Your task to perform on an android device: Search for vegetarian restaurants on Maps Image 0: 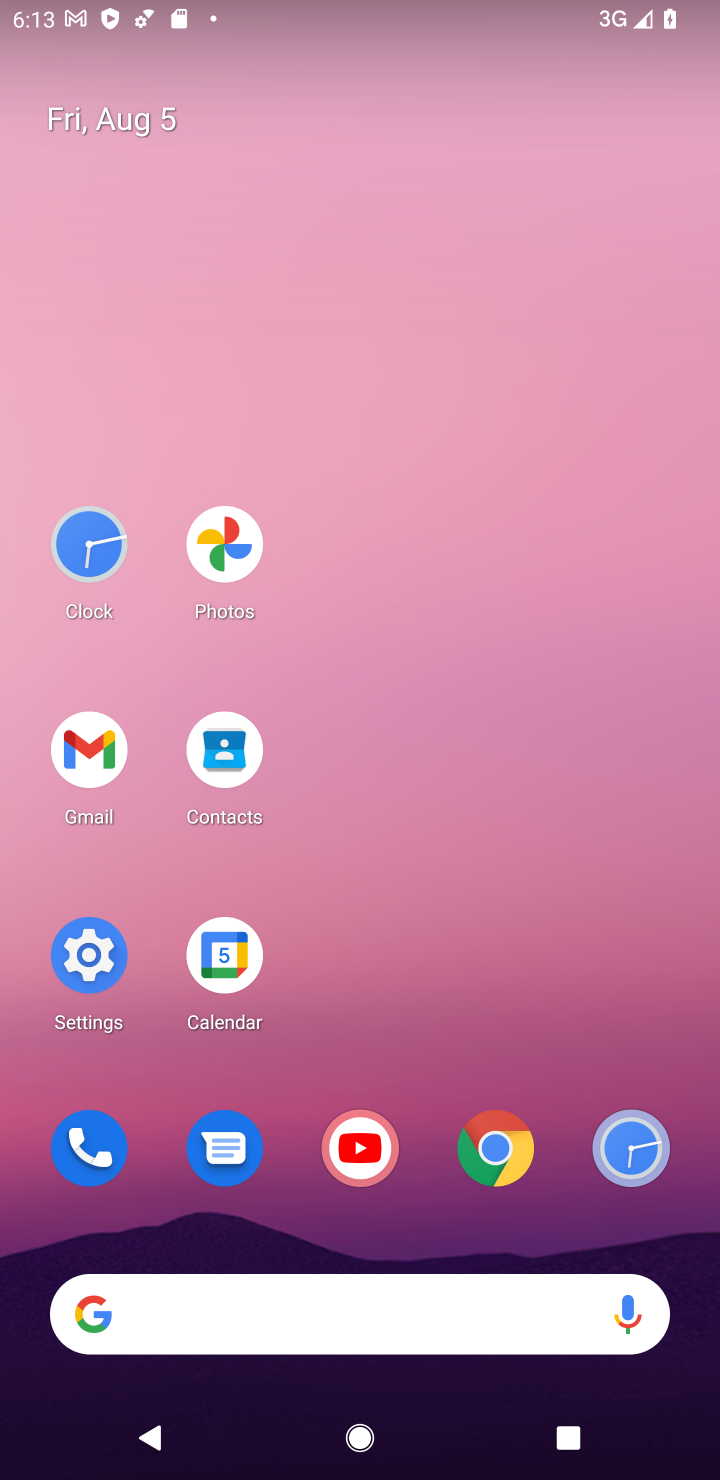
Step 0: drag from (451, 1235) to (338, 261)
Your task to perform on an android device: Search for vegetarian restaurants on Maps Image 1: 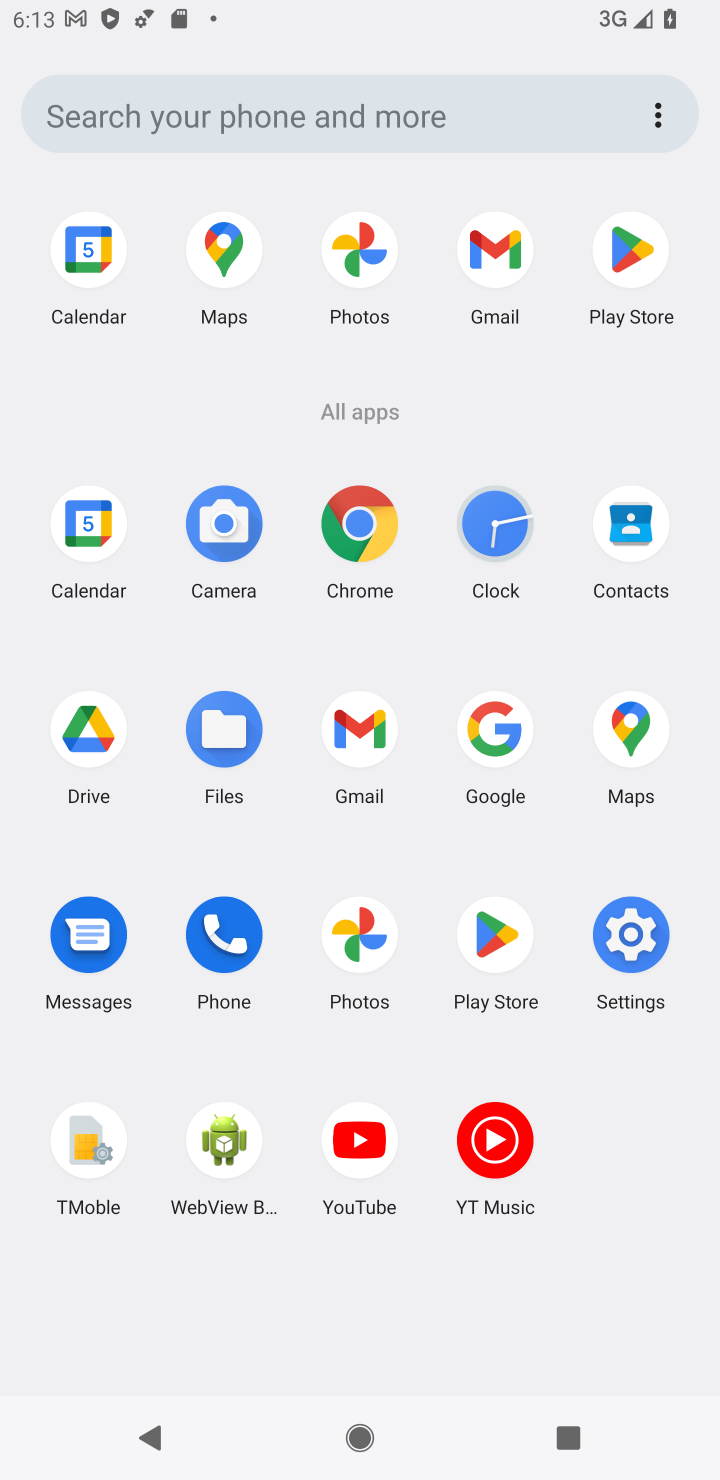
Step 1: click (227, 234)
Your task to perform on an android device: Search for vegetarian restaurants on Maps Image 2: 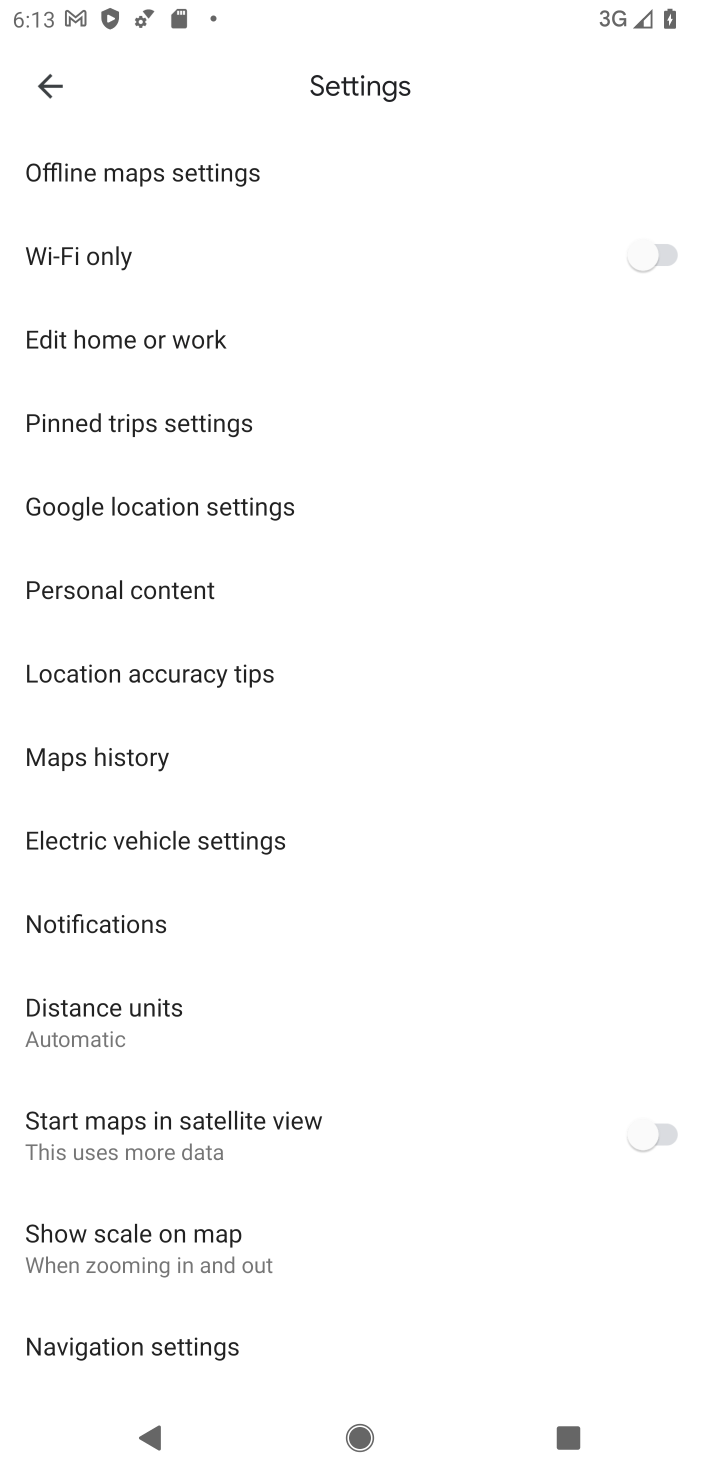
Step 2: click (42, 88)
Your task to perform on an android device: Search for vegetarian restaurants on Maps Image 3: 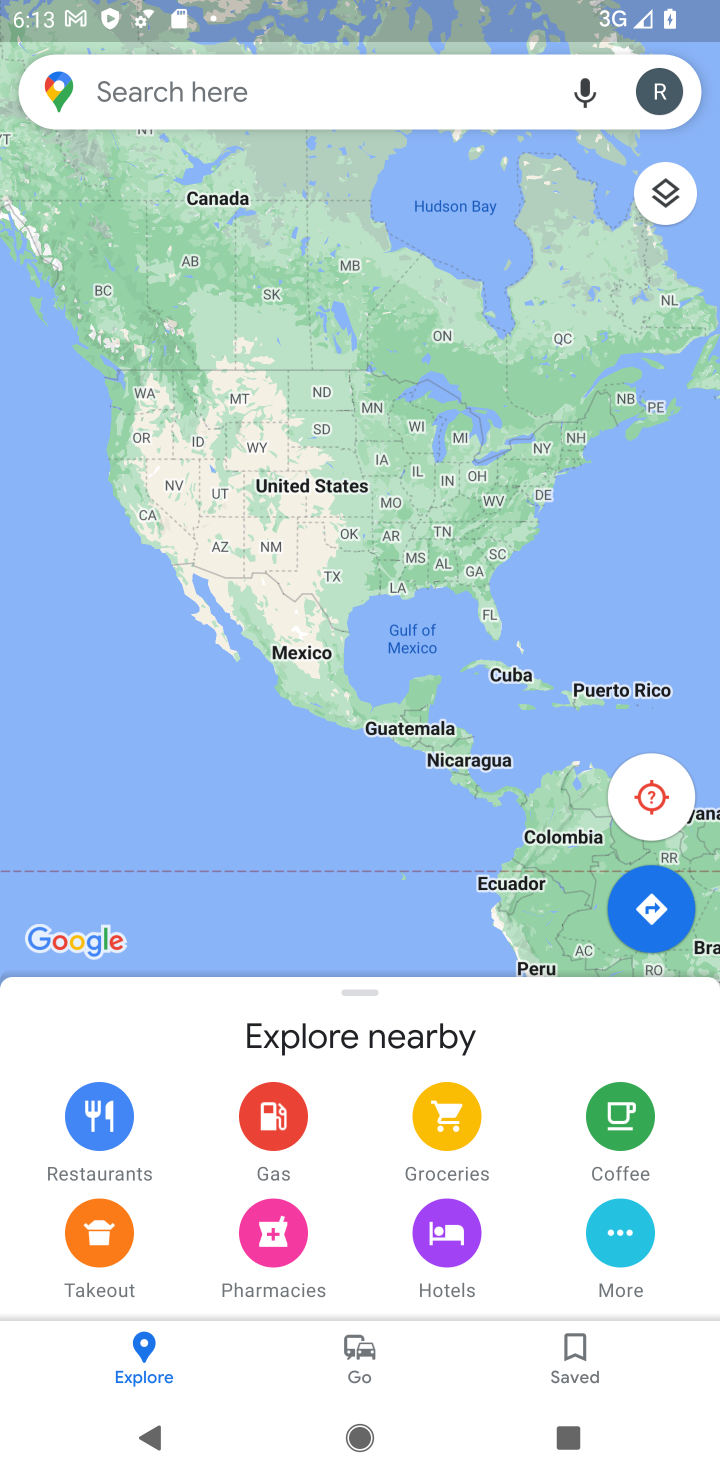
Step 3: click (300, 99)
Your task to perform on an android device: Search for vegetarian restaurants on Maps Image 4: 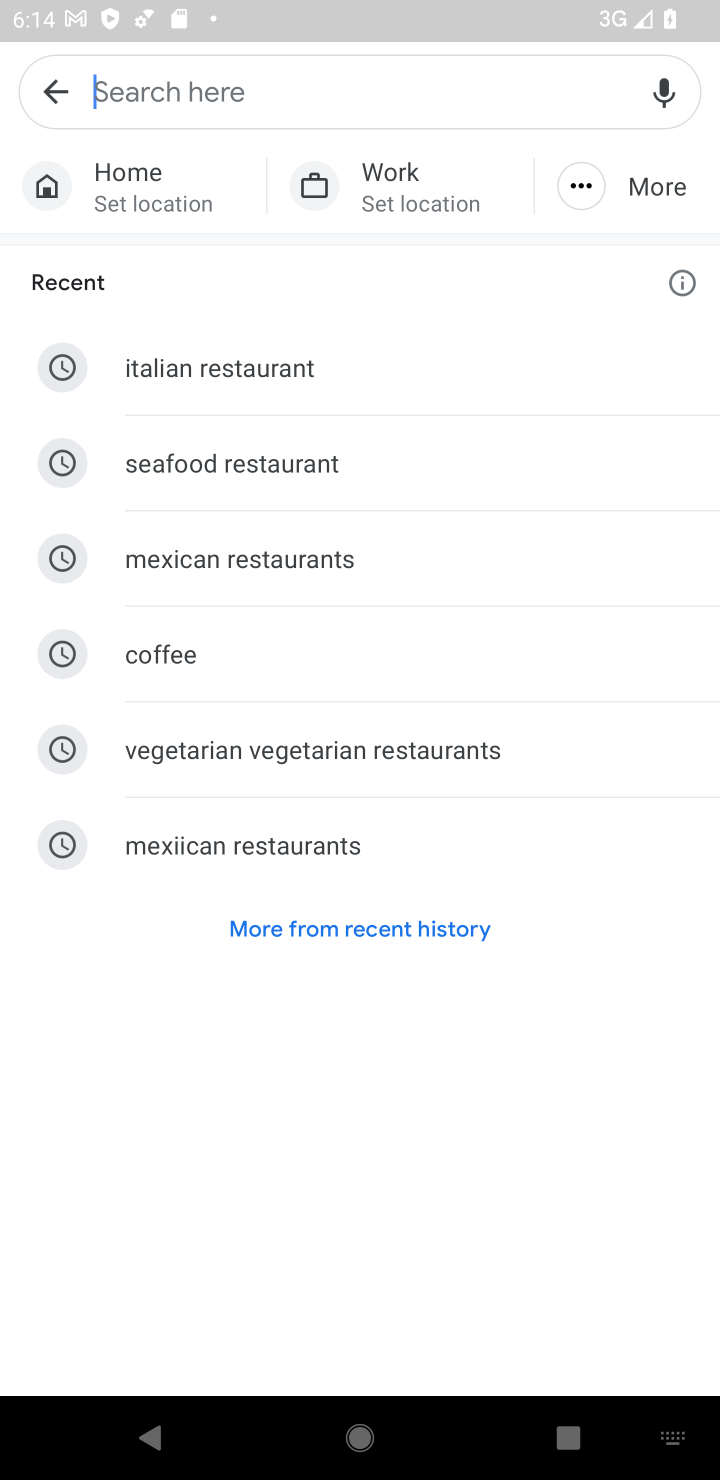
Step 4: click (310, 753)
Your task to perform on an android device: Search for vegetarian restaurants on Maps Image 5: 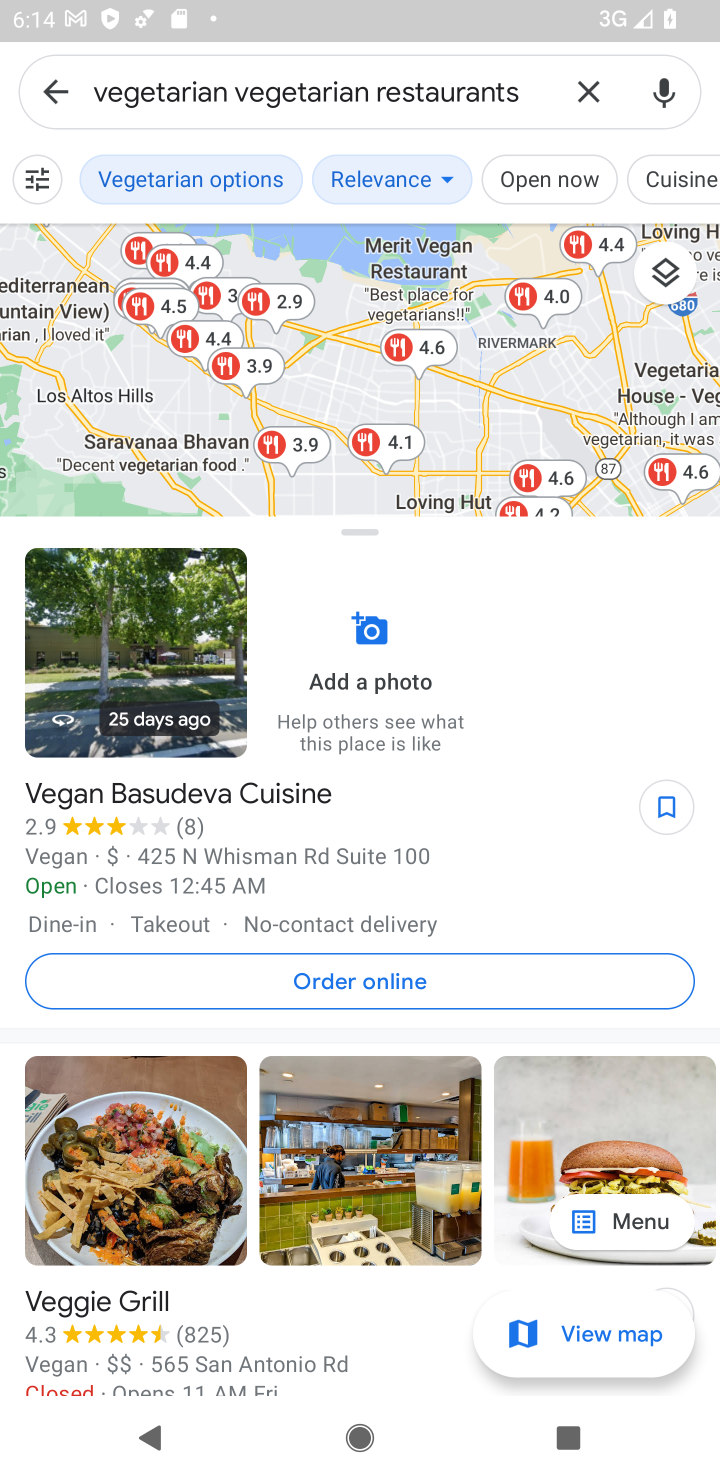
Step 5: task complete